Your task to perform on an android device: Show me the alarms in the clock app Image 0: 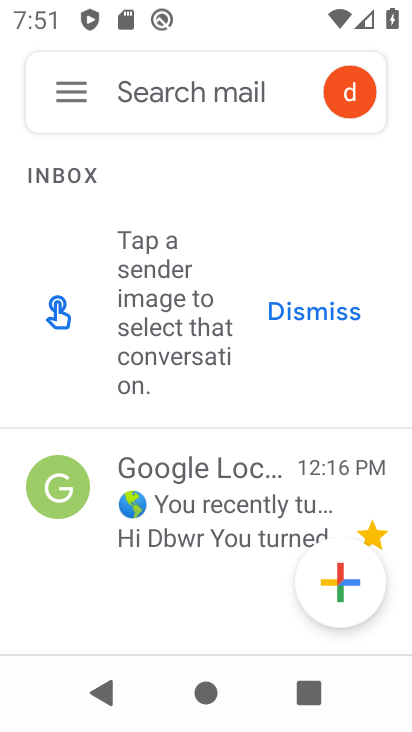
Step 0: press home button
Your task to perform on an android device: Show me the alarms in the clock app Image 1: 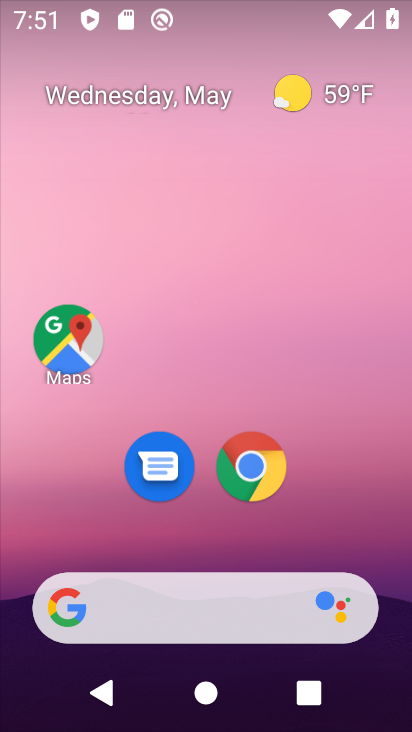
Step 1: drag from (312, 413) to (303, 181)
Your task to perform on an android device: Show me the alarms in the clock app Image 2: 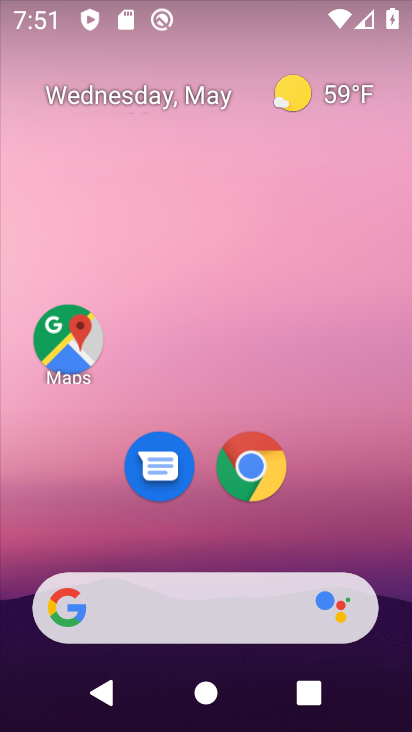
Step 2: drag from (304, 456) to (310, 169)
Your task to perform on an android device: Show me the alarms in the clock app Image 3: 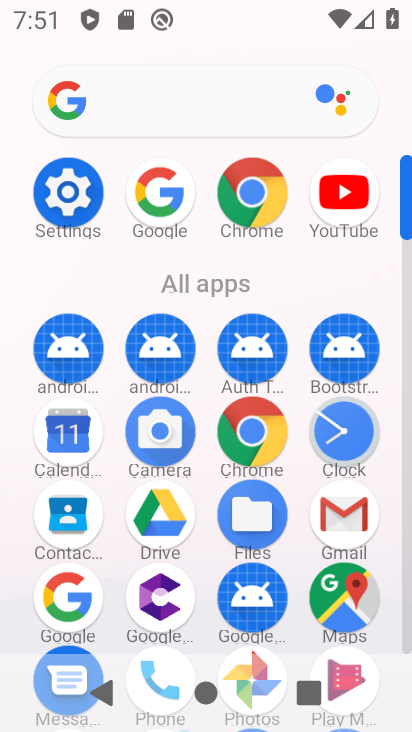
Step 3: click (349, 437)
Your task to perform on an android device: Show me the alarms in the clock app Image 4: 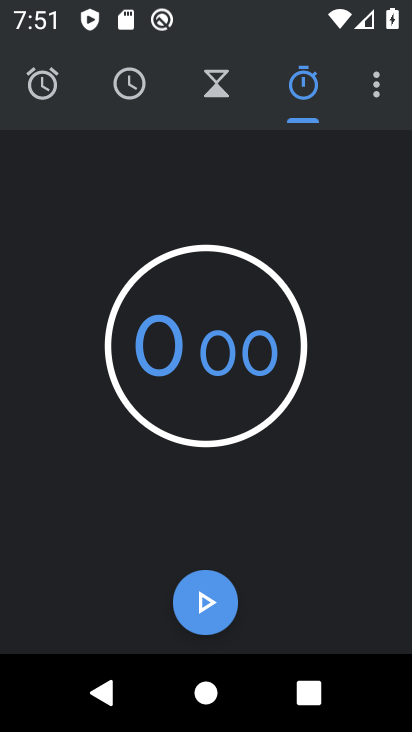
Step 4: click (39, 91)
Your task to perform on an android device: Show me the alarms in the clock app Image 5: 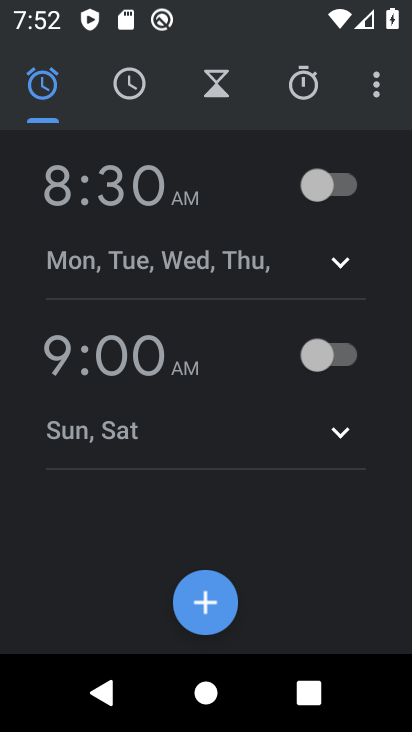
Step 5: task complete